Your task to perform on an android device: turn on javascript in the chrome app Image 0: 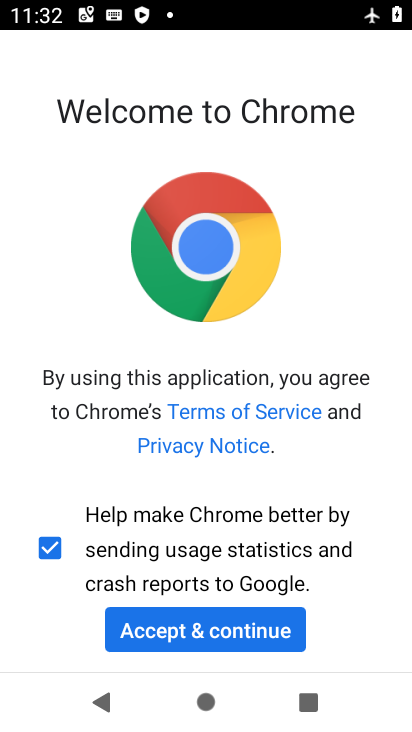
Step 0: click (268, 639)
Your task to perform on an android device: turn on javascript in the chrome app Image 1: 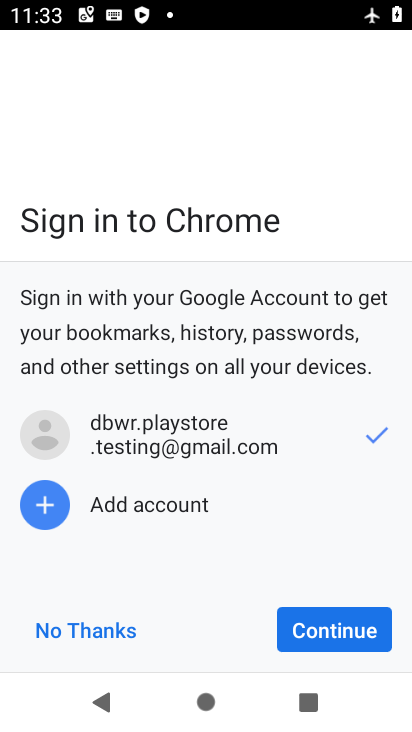
Step 1: click (311, 637)
Your task to perform on an android device: turn on javascript in the chrome app Image 2: 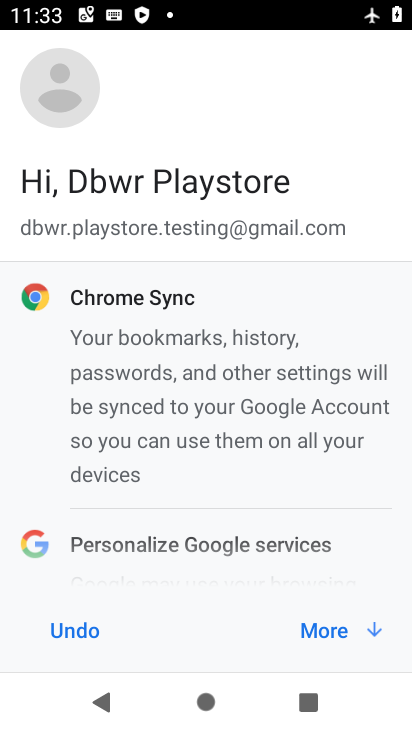
Step 2: click (311, 637)
Your task to perform on an android device: turn on javascript in the chrome app Image 3: 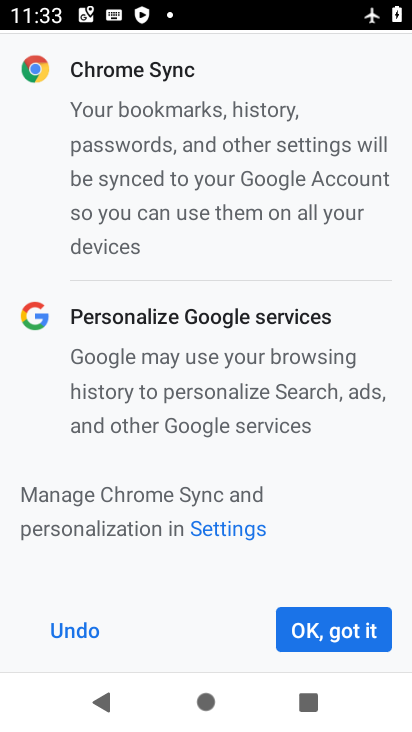
Step 3: click (311, 637)
Your task to perform on an android device: turn on javascript in the chrome app Image 4: 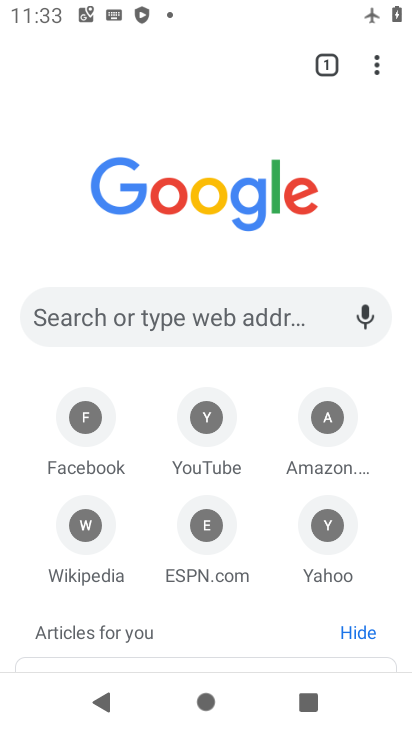
Step 4: click (377, 79)
Your task to perform on an android device: turn on javascript in the chrome app Image 5: 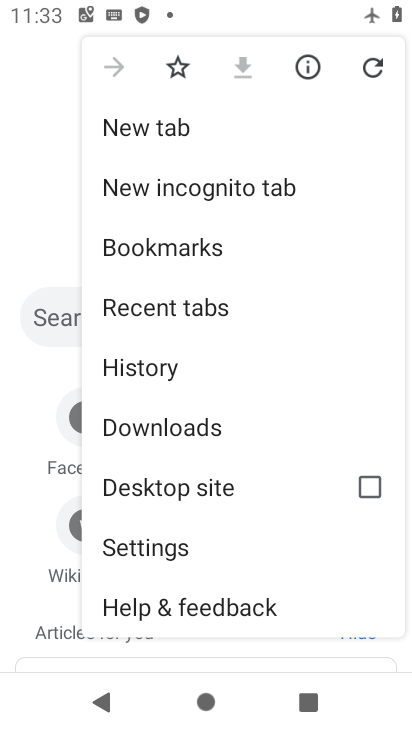
Step 5: click (229, 544)
Your task to perform on an android device: turn on javascript in the chrome app Image 6: 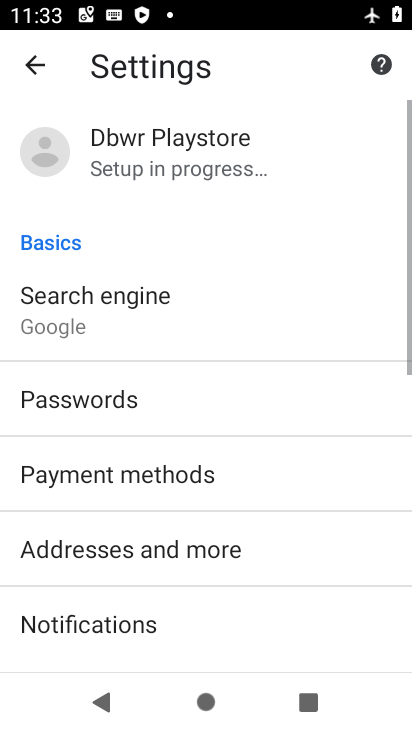
Step 6: drag from (256, 619) to (215, 91)
Your task to perform on an android device: turn on javascript in the chrome app Image 7: 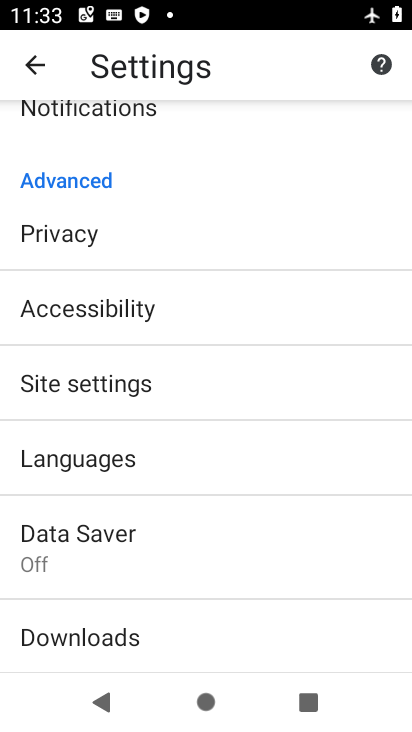
Step 7: click (232, 358)
Your task to perform on an android device: turn on javascript in the chrome app Image 8: 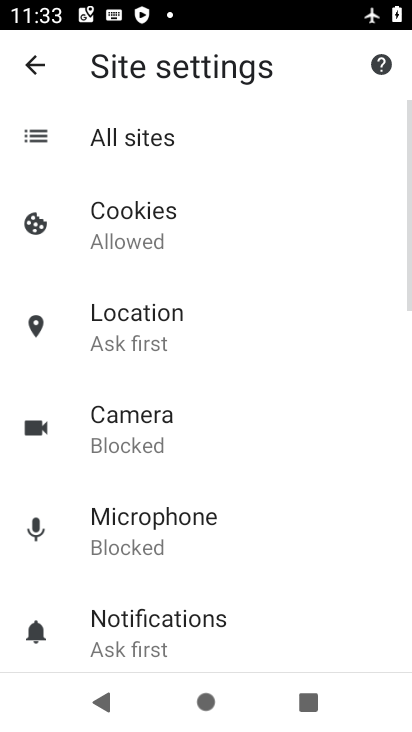
Step 8: drag from (278, 545) to (201, 252)
Your task to perform on an android device: turn on javascript in the chrome app Image 9: 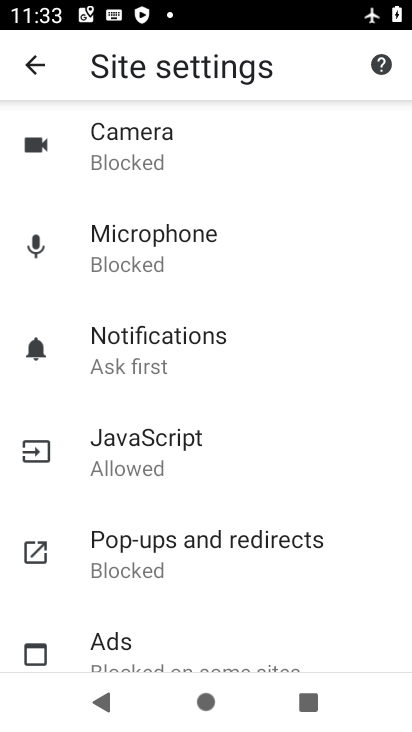
Step 9: click (221, 468)
Your task to perform on an android device: turn on javascript in the chrome app Image 10: 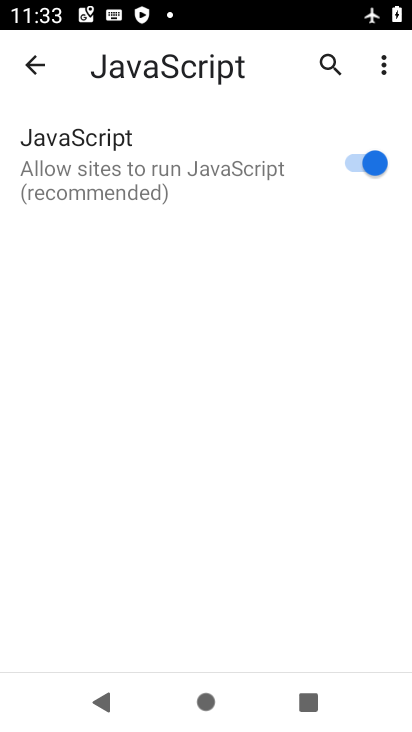
Step 10: task complete